Your task to perform on an android device: manage bookmarks in the chrome app Image 0: 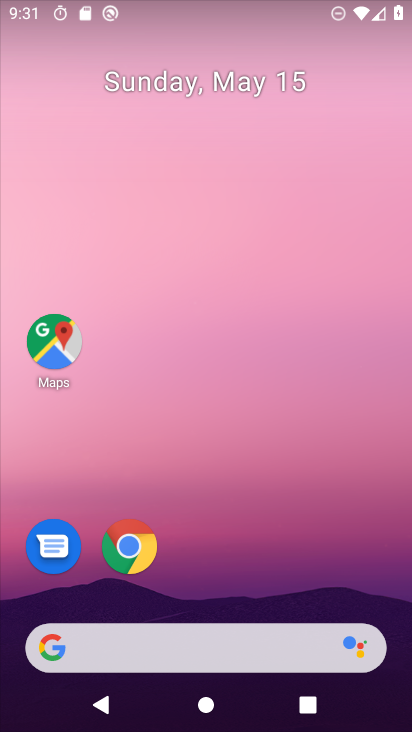
Step 0: click (134, 549)
Your task to perform on an android device: manage bookmarks in the chrome app Image 1: 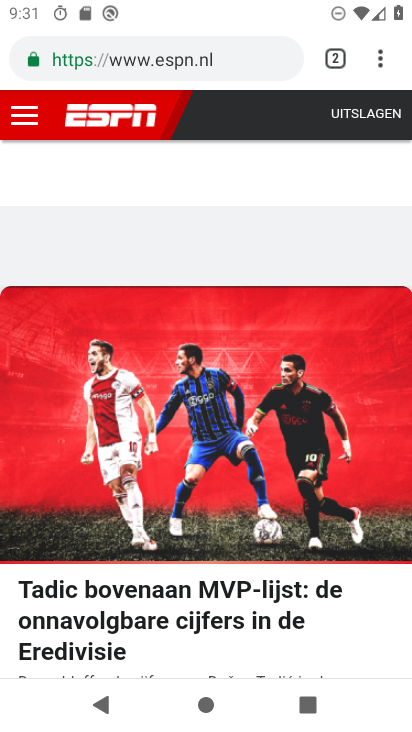
Step 1: click (378, 53)
Your task to perform on an android device: manage bookmarks in the chrome app Image 2: 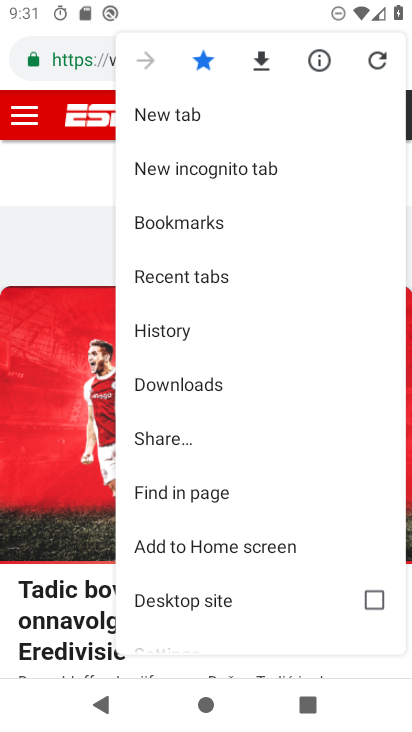
Step 2: click (221, 223)
Your task to perform on an android device: manage bookmarks in the chrome app Image 3: 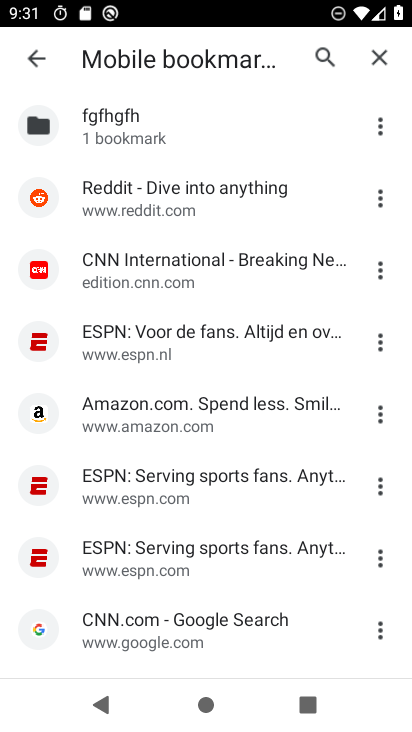
Step 3: click (376, 265)
Your task to perform on an android device: manage bookmarks in the chrome app Image 4: 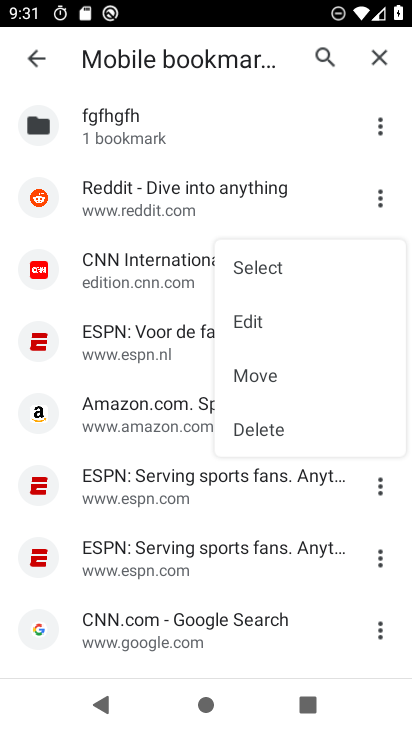
Step 4: click (275, 311)
Your task to perform on an android device: manage bookmarks in the chrome app Image 5: 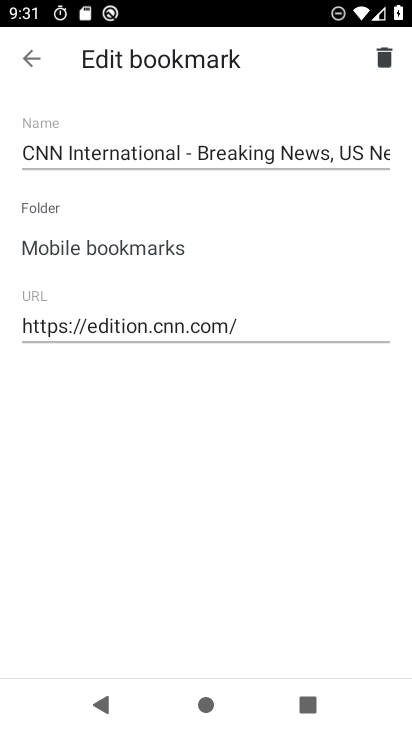
Step 5: click (30, 55)
Your task to perform on an android device: manage bookmarks in the chrome app Image 6: 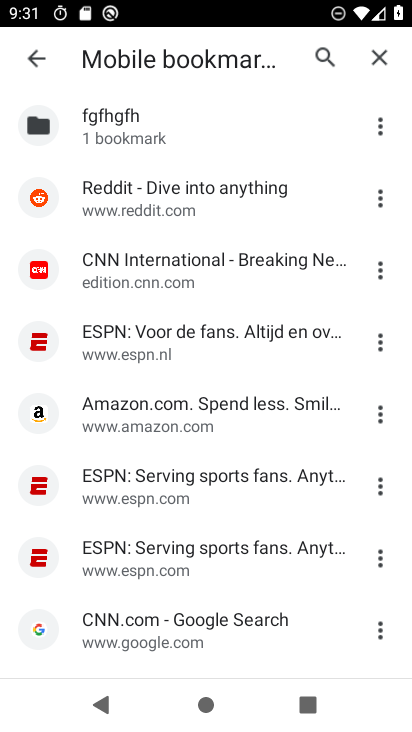
Step 6: task complete